Your task to perform on an android device: Set the phone to "Do not disturb". Image 0: 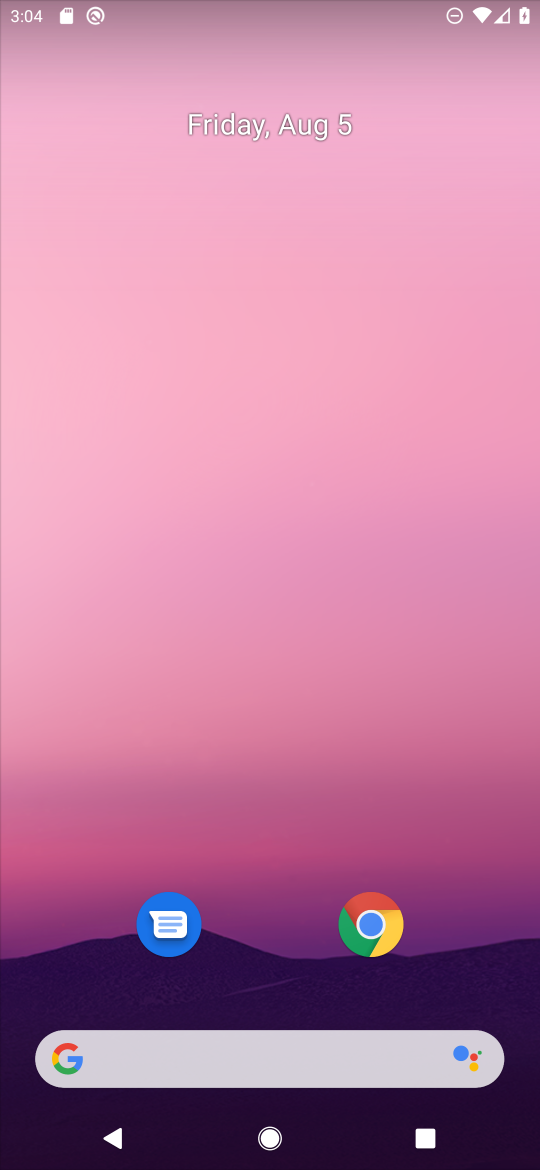
Step 0: drag from (311, 16) to (315, 773)
Your task to perform on an android device: Set the phone to "Do not disturb". Image 1: 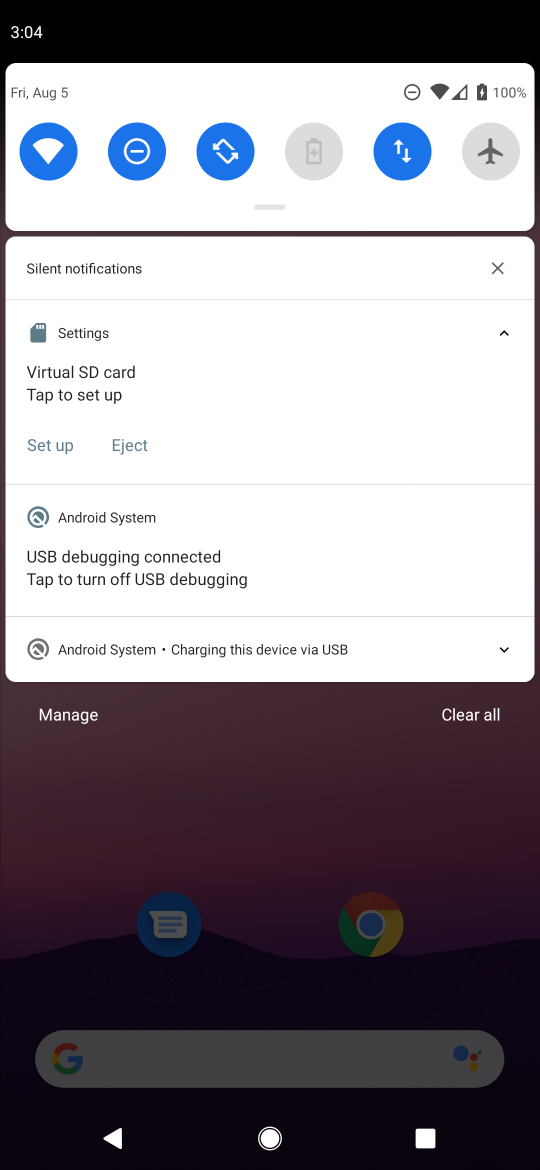
Step 1: task complete